Your task to perform on an android device: Check the news Image 0: 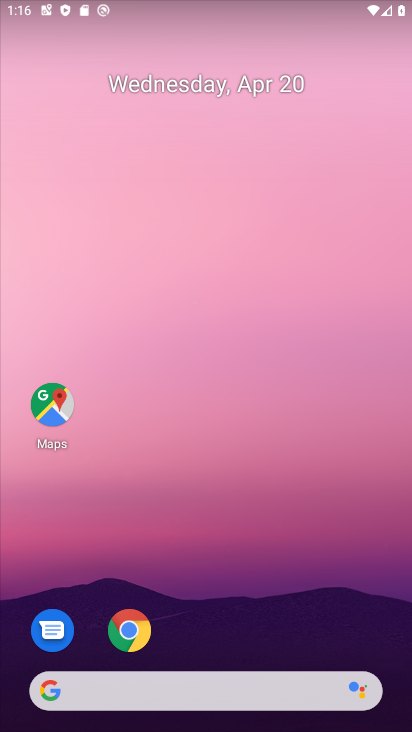
Step 0: drag from (382, 609) to (381, 129)
Your task to perform on an android device: Check the news Image 1: 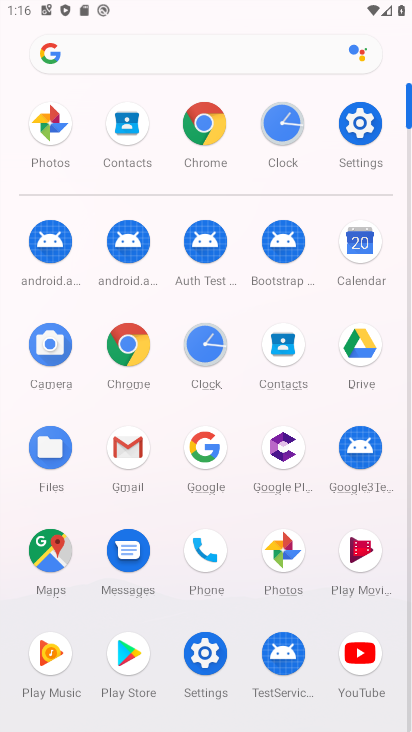
Step 1: click (211, 125)
Your task to perform on an android device: Check the news Image 2: 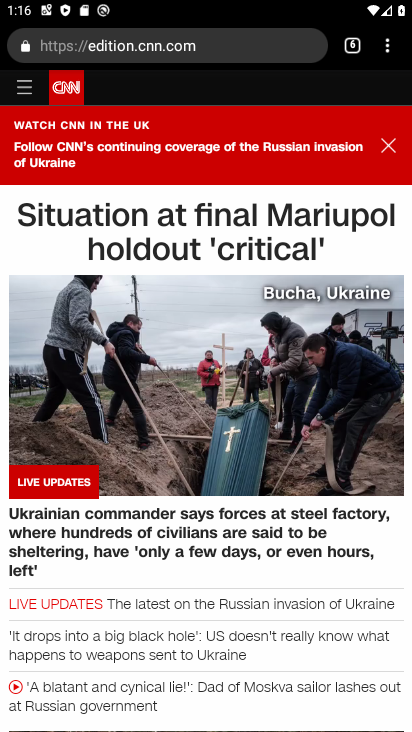
Step 2: task complete